Your task to perform on an android device: delete a single message in the gmail app Image 0: 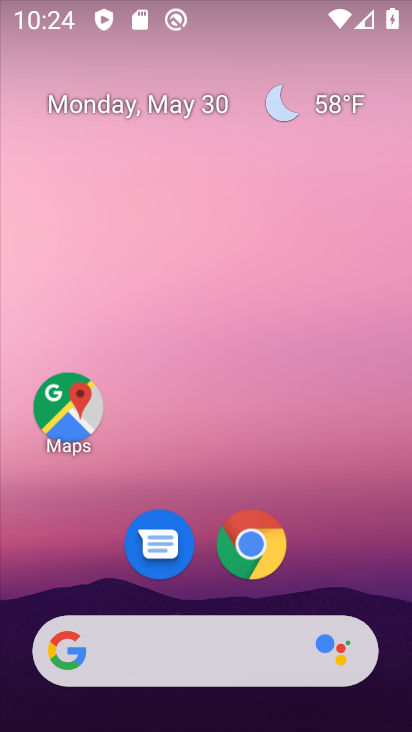
Step 0: drag from (343, 585) to (337, 9)
Your task to perform on an android device: delete a single message in the gmail app Image 1: 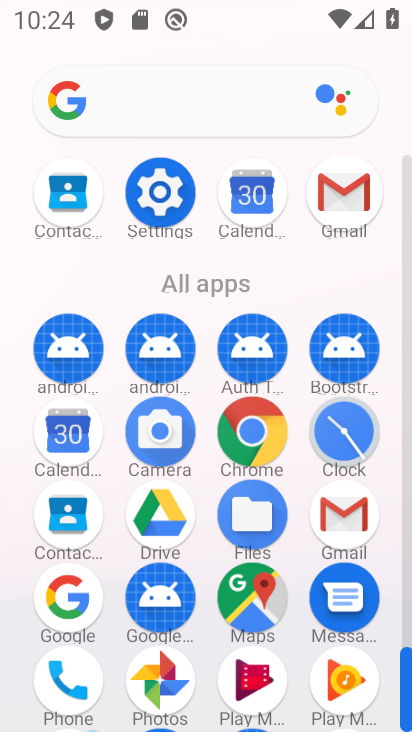
Step 1: click (335, 209)
Your task to perform on an android device: delete a single message in the gmail app Image 2: 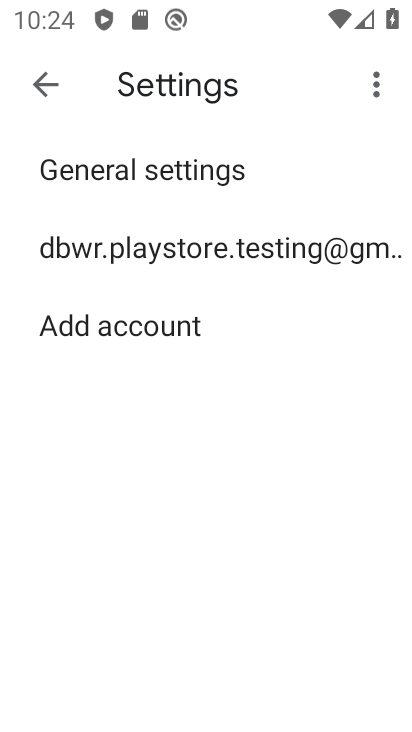
Step 2: click (58, 107)
Your task to perform on an android device: delete a single message in the gmail app Image 3: 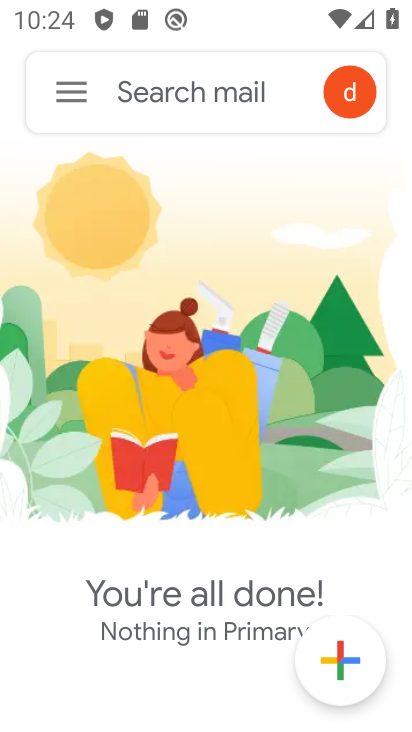
Step 3: task complete